Your task to perform on an android device: turn on location history Image 0: 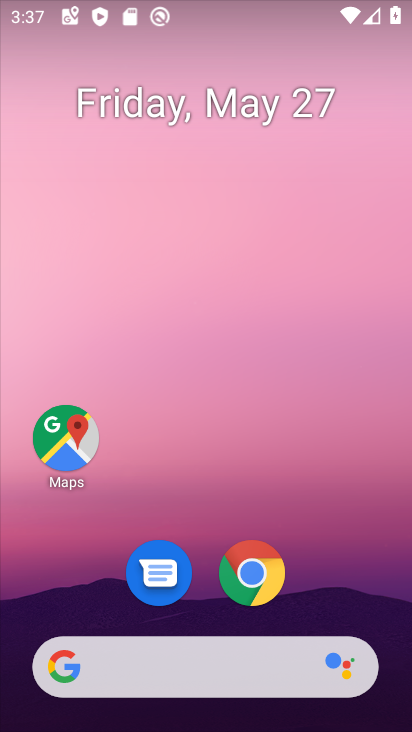
Step 0: drag from (246, 490) to (257, 205)
Your task to perform on an android device: turn on location history Image 1: 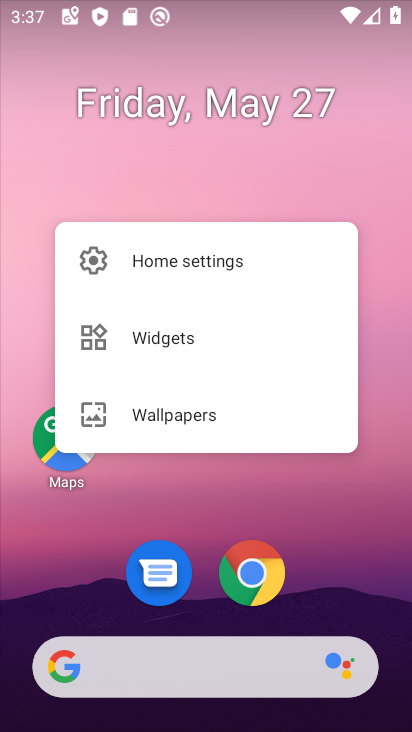
Step 1: click (333, 536)
Your task to perform on an android device: turn on location history Image 2: 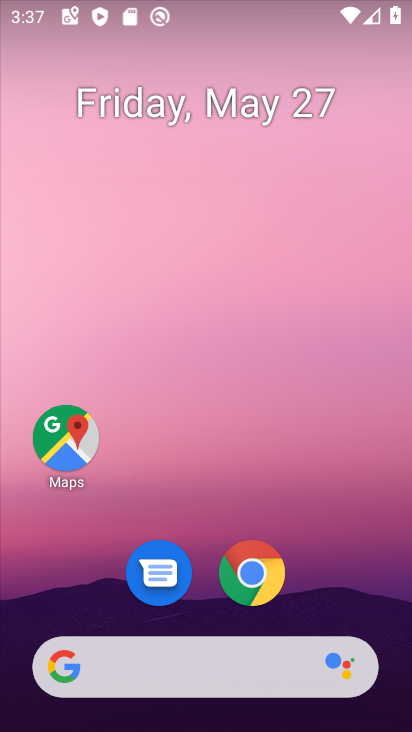
Step 2: drag from (333, 534) to (332, 35)
Your task to perform on an android device: turn on location history Image 3: 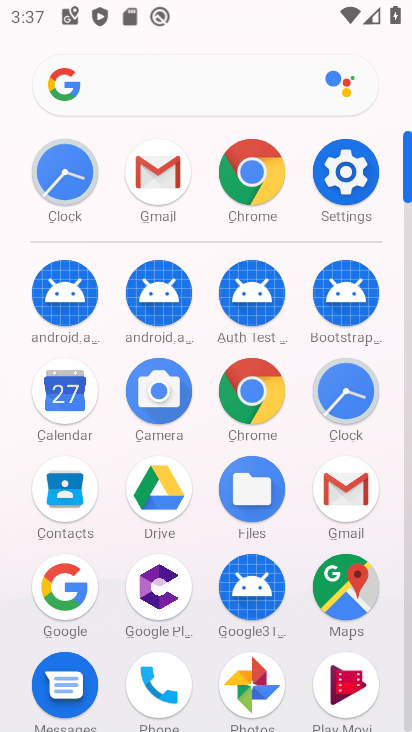
Step 3: click (335, 177)
Your task to perform on an android device: turn on location history Image 4: 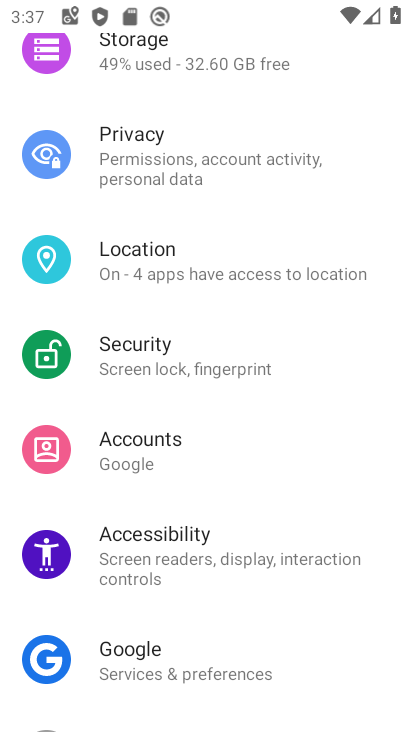
Step 4: click (237, 256)
Your task to perform on an android device: turn on location history Image 5: 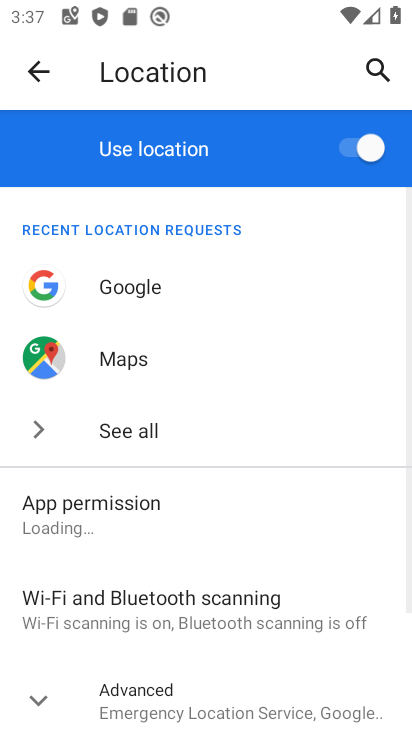
Step 5: drag from (152, 533) to (184, 188)
Your task to perform on an android device: turn on location history Image 6: 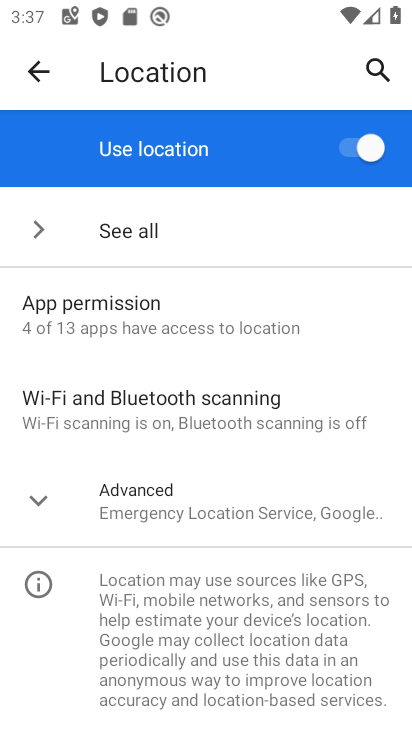
Step 6: click (35, 499)
Your task to perform on an android device: turn on location history Image 7: 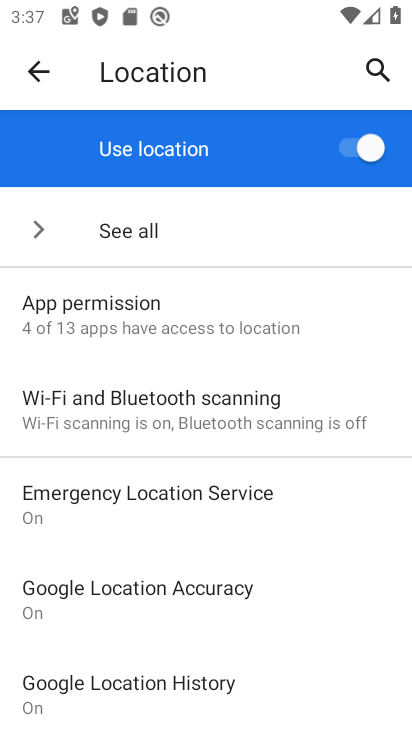
Step 7: task complete